Your task to perform on an android device: open a new tab in the chrome app Image 0: 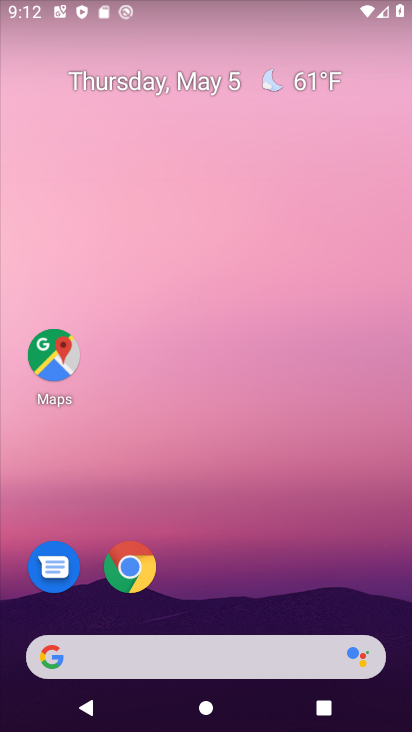
Step 0: click (134, 574)
Your task to perform on an android device: open a new tab in the chrome app Image 1: 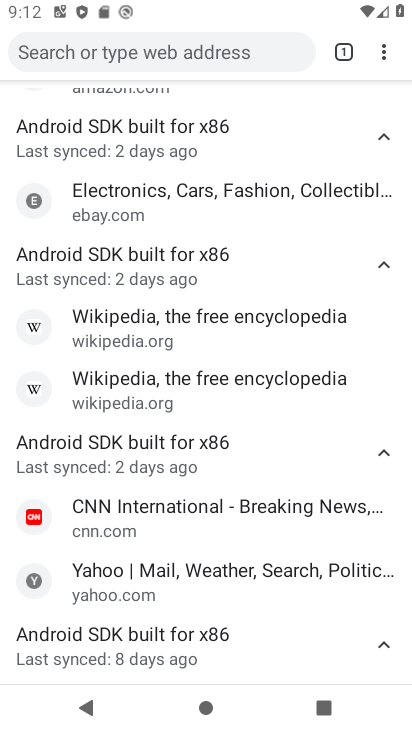
Step 1: click (350, 54)
Your task to perform on an android device: open a new tab in the chrome app Image 2: 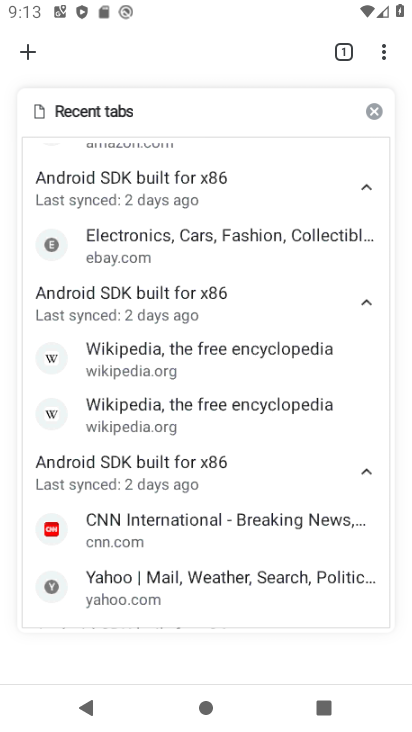
Step 2: click (33, 55)
Your task to perform on an android device: open a new tab in the chrome app Image 3: 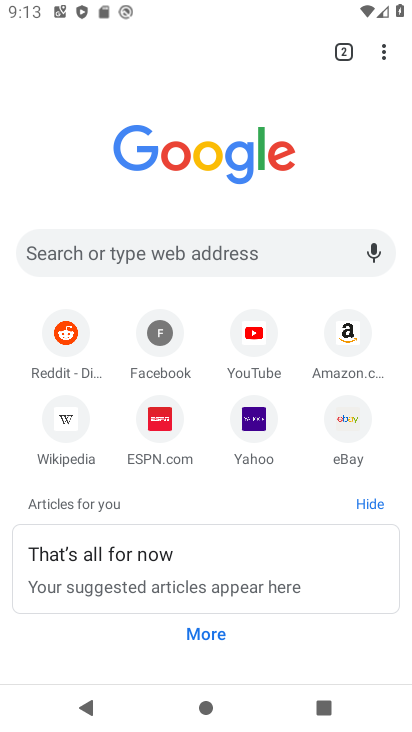
Step 3: task complete